Your task to perform on an android device: Turn on the flashlight Image 0: 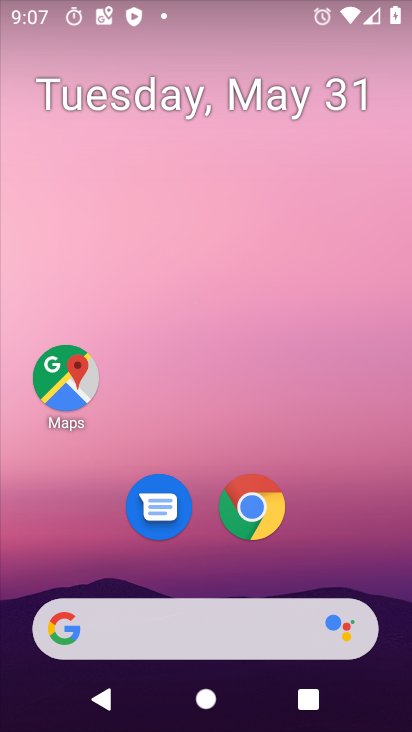
Step 0: drag from (190, 6) to (229, 640)
Your task to perform on an android device: Turn on the flashlight Image 1: 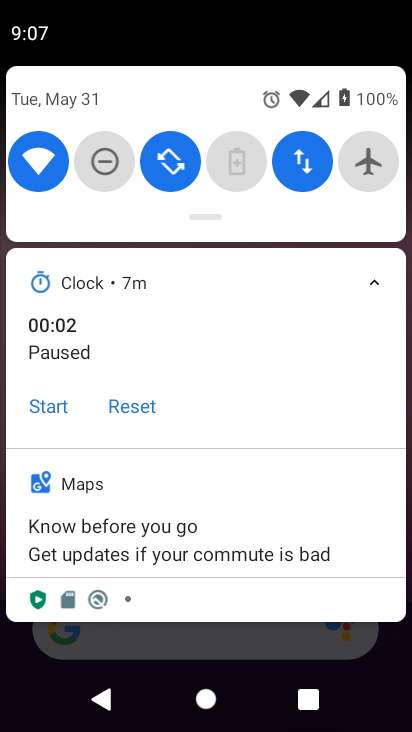
Step 1: task complete